Your task to perform on an android device: Search for Italian restaurants on Maps Image 0: 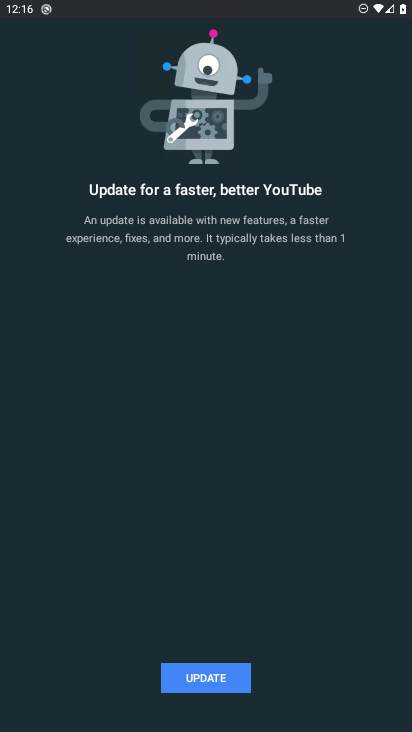
Step 0: press home button
Your task to perform on an android device: Search for Italian restaurants on Maps Image 1: 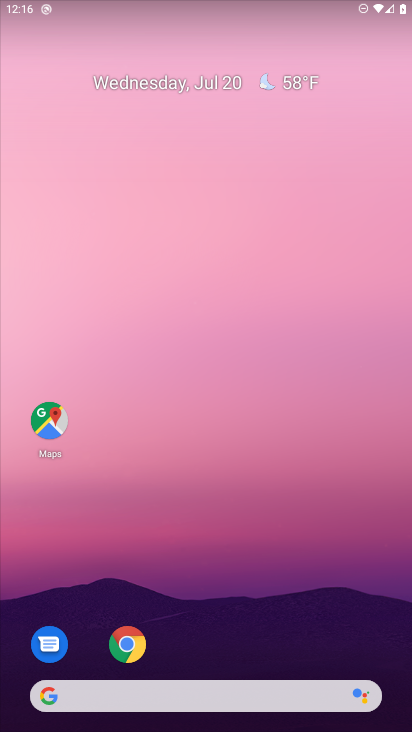
Step 1: click (59, 424)
Your task to perform on an android device: Search for Italian restaurants on Maps Image 2: 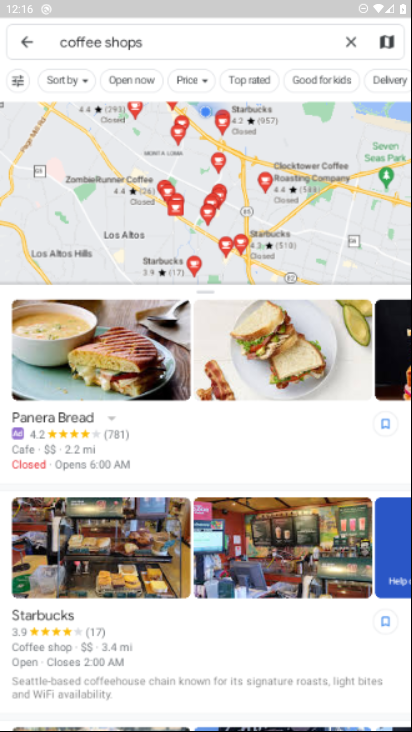
Step 2: click (64, 394)
Your task to perform on an android device: Search for Italian restaurants on Maps Image 3: 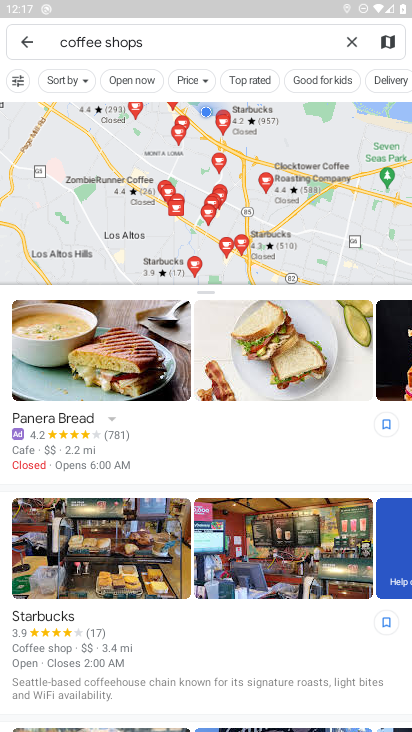
Step 3: click (25, 42)
Your task to perform on an android device: Search for Italian restaurants on Maps Image 4: 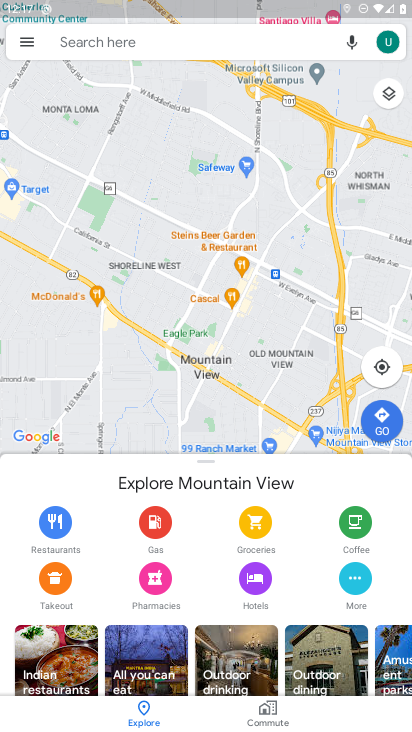
Step 4: click (72, 41)
Your task to perform on an android device: Search for Italian restaurants on Maps Image 5: 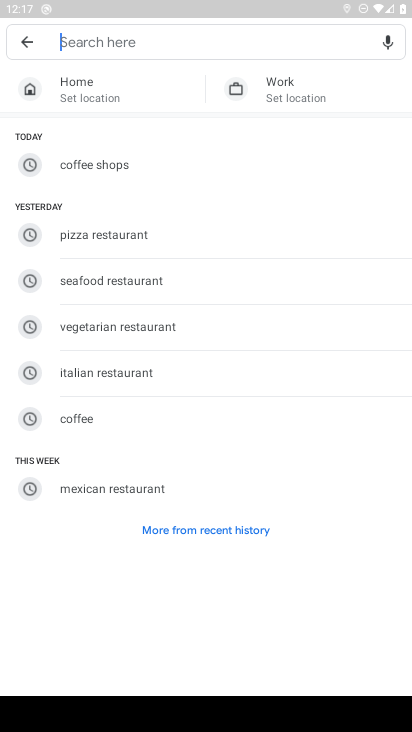
Step 5: type "Italian restaurants"
Your task to perform on an android device: Search for Italian restaurants on Maps Image 6: 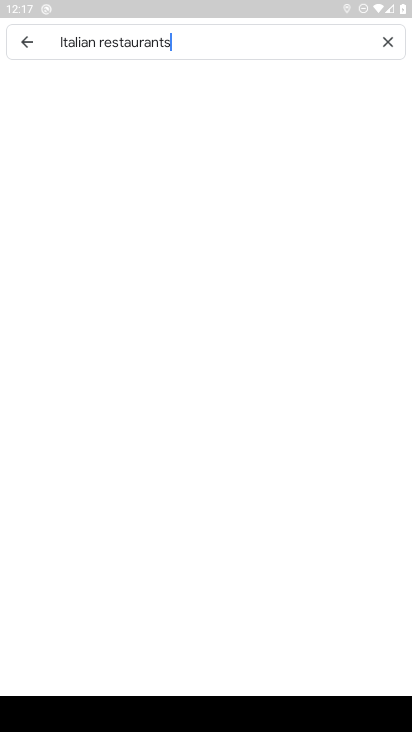
Step 6: type ""
Your task to perform on an android device: Search for Italian restaurants on Maps Image 7: 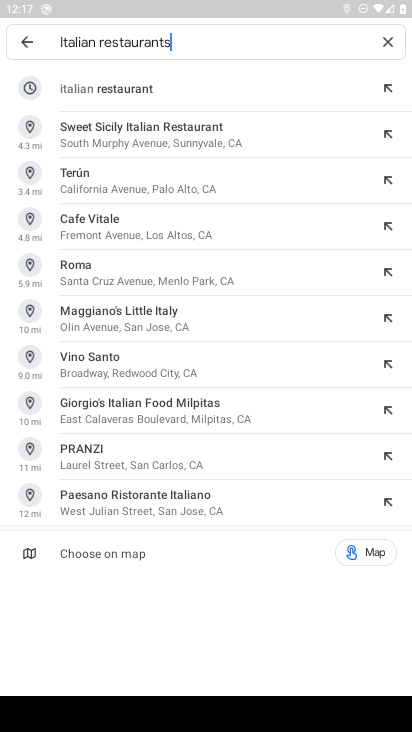
Step 7: type ""
Your task to perform on an android device: Search for Italian restaurants on Maps Image 8: 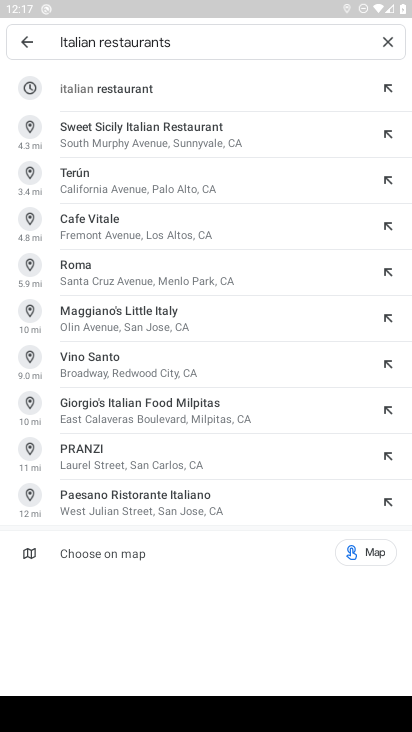
Step 8: type ""
Your task to perform on an android device: Search for Italian restaurants on Maps Image 9: 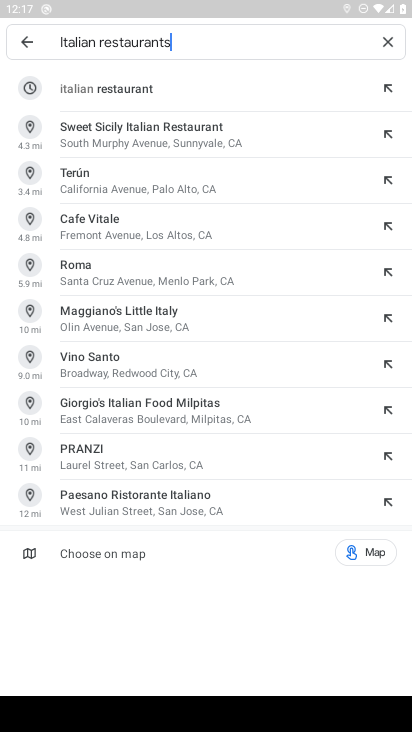
Step 9: type ""
Your task to perform on an android device: Search for Italian restaurants on Maps Image 10: 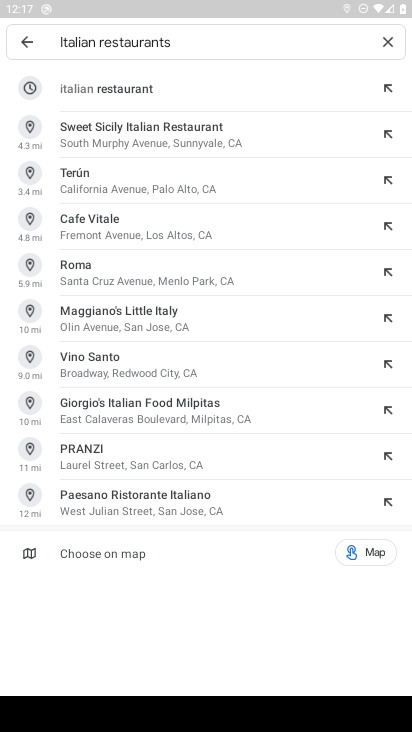
Step 10: task complete